Your task to perform on an android device: Open calendar and show me the third week of next month Image 0: 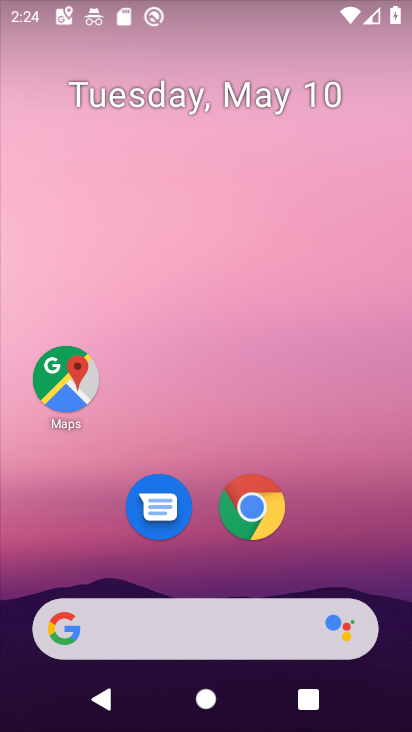
Step 0: drag from (273, 519) to (328, 157)
Your task to perform on an android device: Open calendar and show me the third week of next month Image 1: 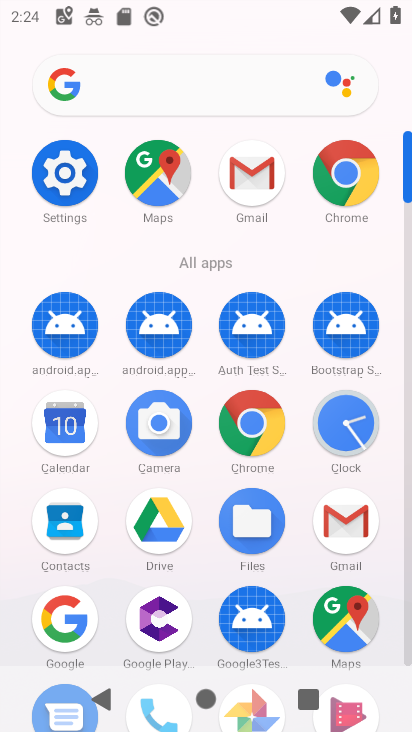
Step 1: click (71, 434)
Your task to perform on an android device: Open calendar and show me the third week of next month Image 2: 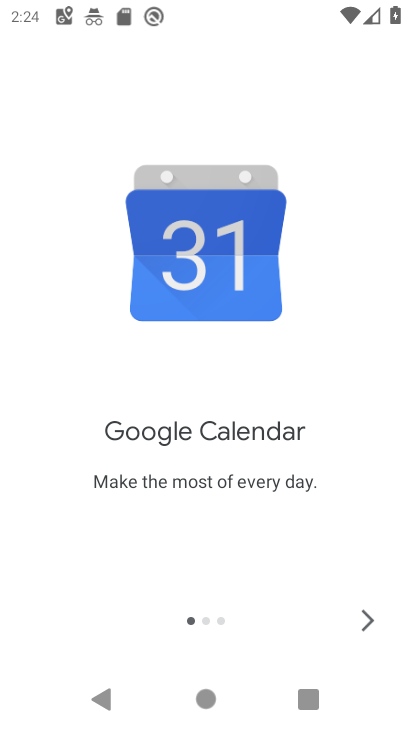
Step 2: click (376, 617)
Your task to perform on an android device: Open calendar and show me the third week of next month Image 3: 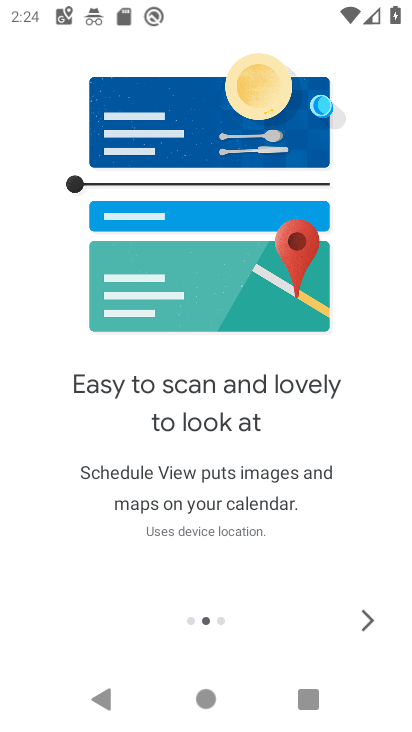
Step 3: click (374, 617)
Your task to perform on an android device: Open calendar and show me the third week of next month Image 4: 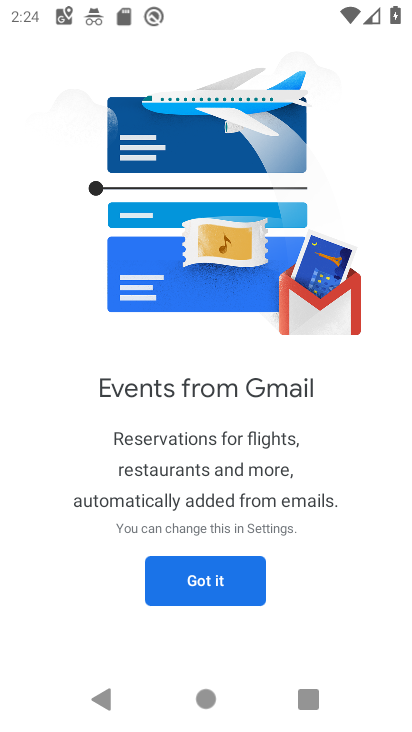
Step 4: click (374, 612)
Your task to perform on an android device: Open calendar and show me the third week of next month Image 5: 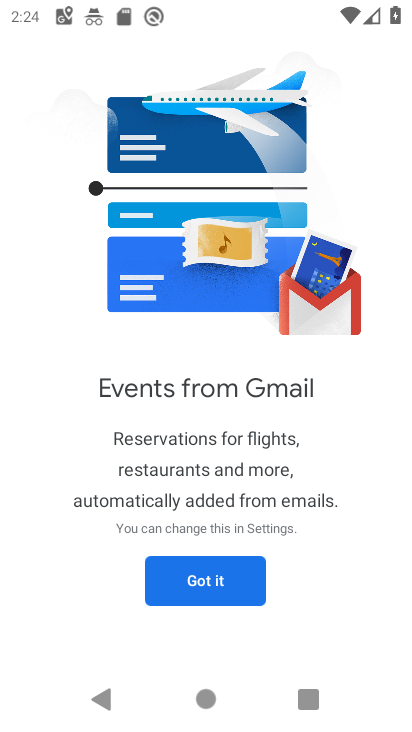
Step 5: click (242, 580)
Your task to perform on an android device: Open calendar and show me the third week of next month Image 6: 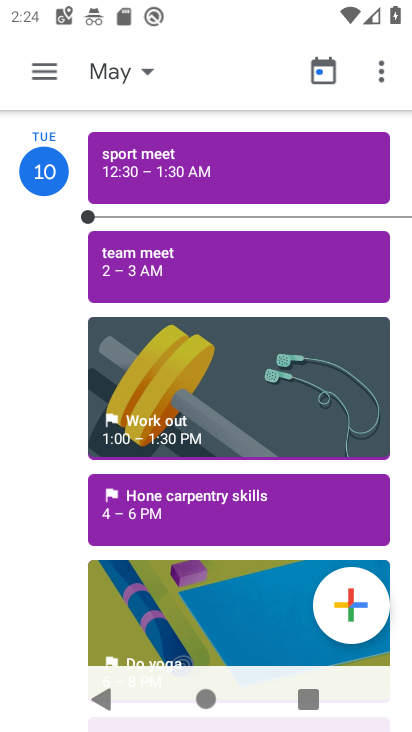
Step 6: click (139, 64)
Your task to perform on an android device: Open calendar and show me the third week of next month Image 7: 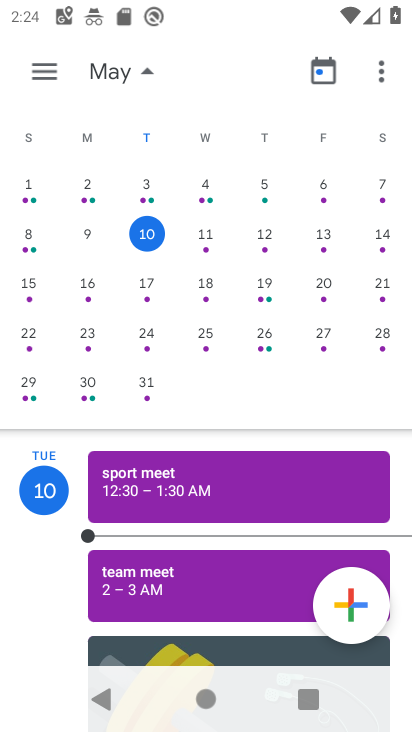
Step 7: drag from (398, 316) to (98, 297)
Your task to perform on an android device: Open calendar and show me the third week of next month Image 8: 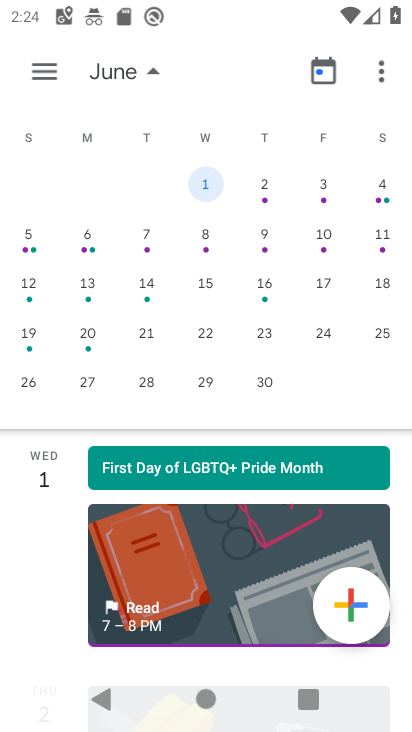
Step 8: click (207, 286)
Your task to perform on an android device: Open calendar and show me the third week of next month Image 9: 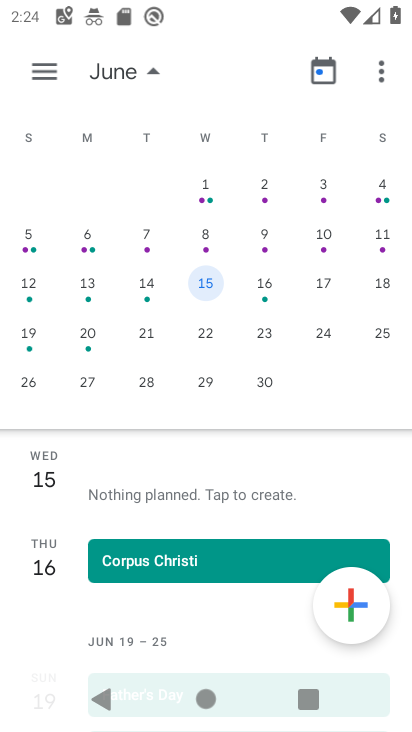
Step 9: click (153, 282)
Your task to perform on an android device: Open calendar and show me the third week of next month Image 10: 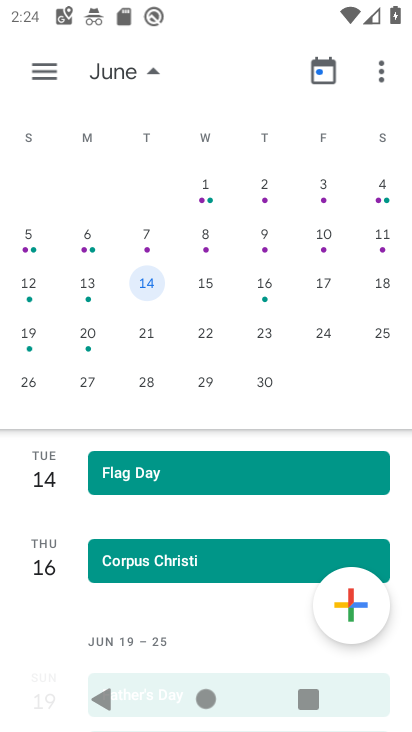
Step 10: click (51, 77)
Your task to perform on an android device: Open calendar and show me the third week of next month Image 11: 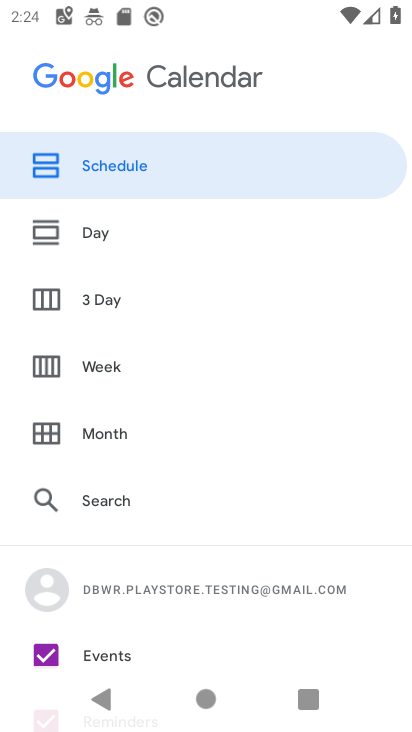
Step 11: click (117, 373)
Your task to perform on an android device: Open calendar and show me the third week of next month Image 12: 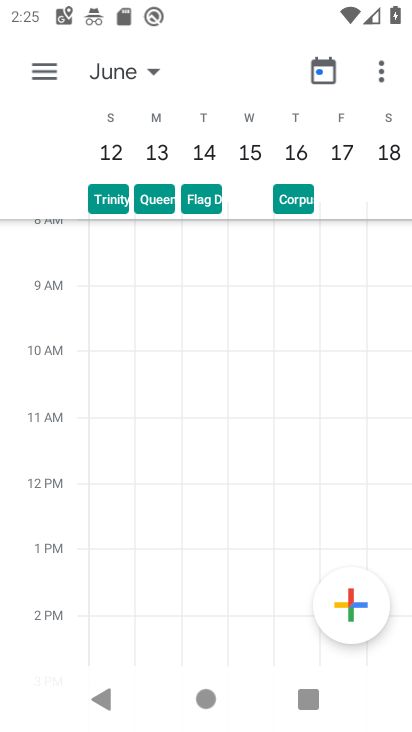
Step 12: task complete